Your task to perform on an android device: Go to Reddit.com Image 0: 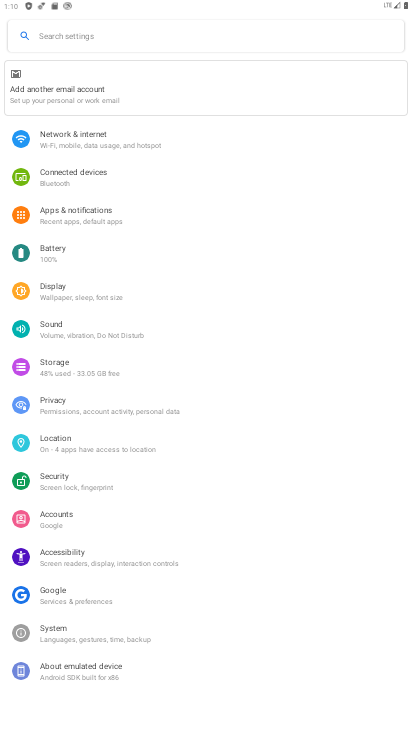
Step 0: press home button
Your task to perform on an android device: Go to Reddit.com Image 1: 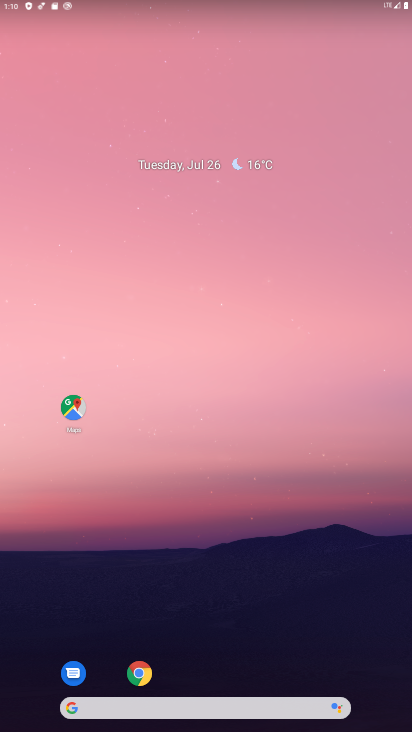
Step 1: click (140, 677)
Your task to perform on an android device: Go to Reddit.com Image 2: 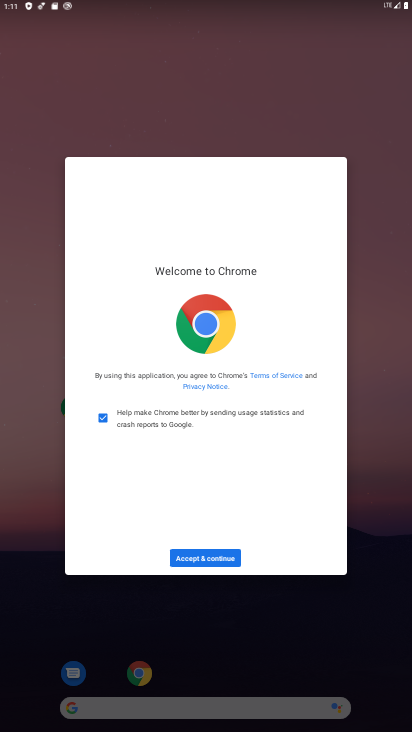
Step 2: click (198, 561)
Your task to perform on an android device: Go to Reddit.com Image 3: 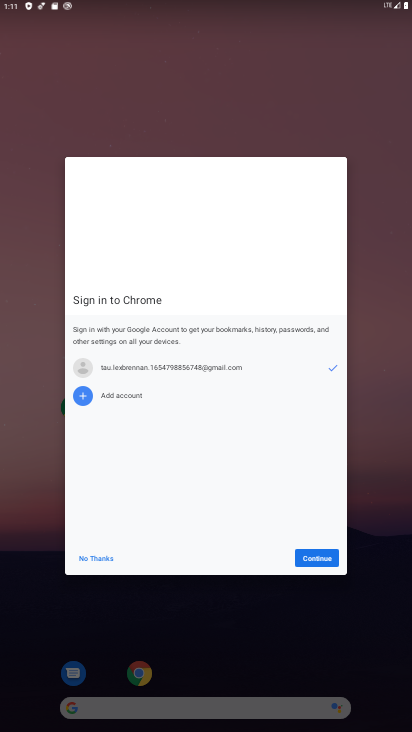
Step 3: click (312, 555)
Your task to perform on an android device: Go to Reddit.com Image 4: 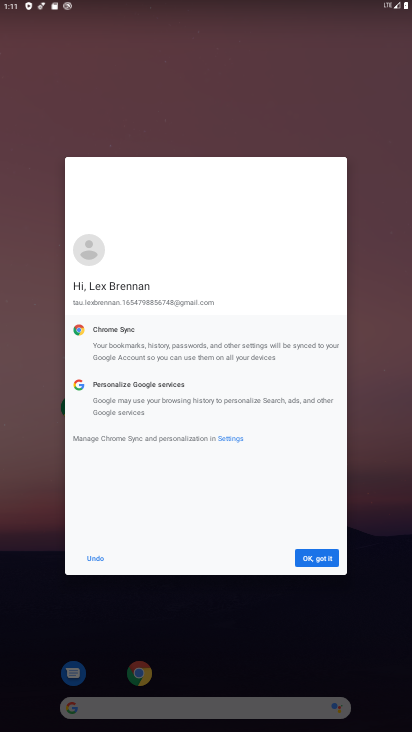
Step 4: click (316, 551)
Your task to perform on an android device: Go to Reddit.com Image 5: 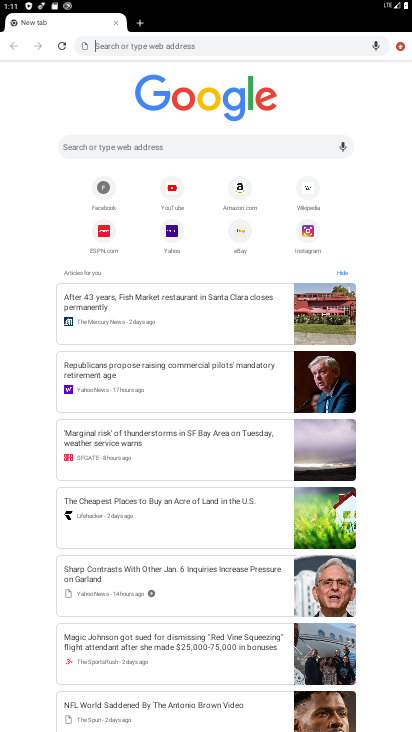
Step 5: click (224, 146)
Your task to perform on an android device: Go to Reddit.com Image 6: 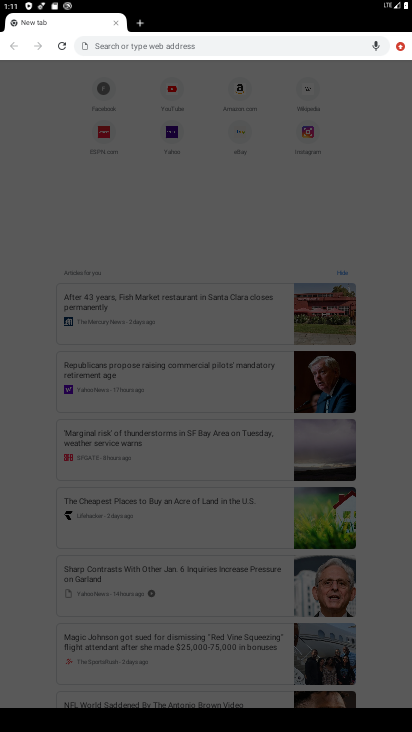
Step 6: type "Reddit.com"
Your task to perform on an android device: Go to Reddit.com Image 7: 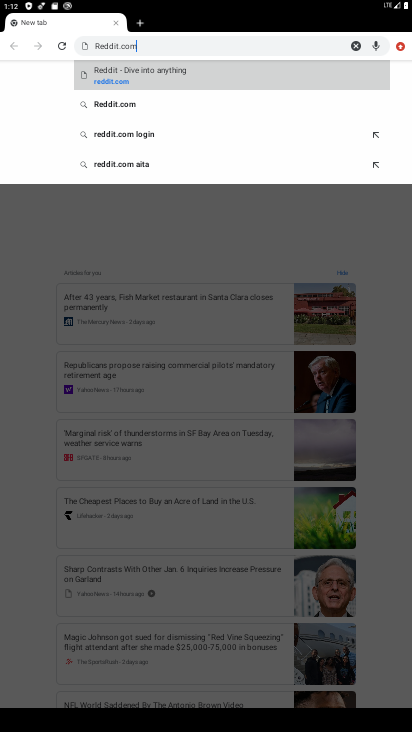
Step 7: click (141, 69)
Your task to perform on an android device: Go to Reddit.com Image 8: 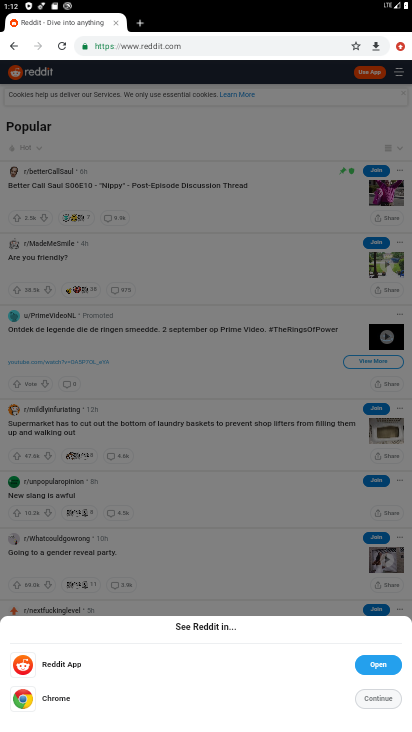
Step 8: task complete